Your task to perform on an android device: turn on javascript in the chrome app Image 0: 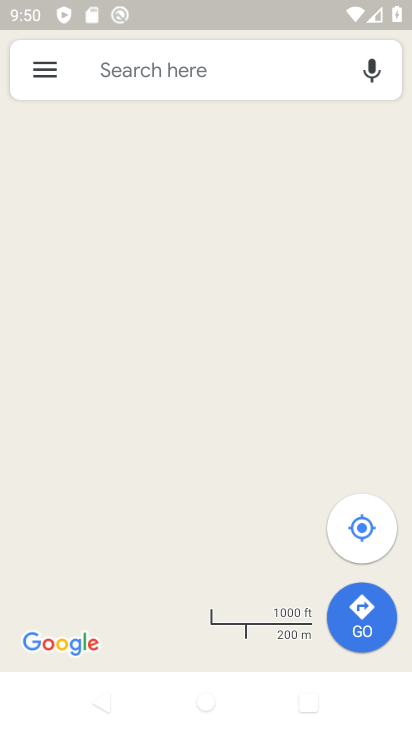
Step 0: press home button
Your task to perform on an android device: turn on javascript in the chrome app Image 1: 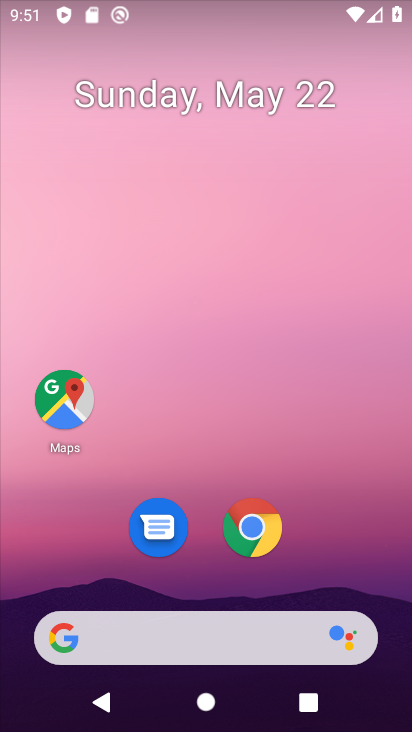
Step 1: click (284, 540)
Your task to perform on an android device: turn on javascript in the chrome app Image 2: 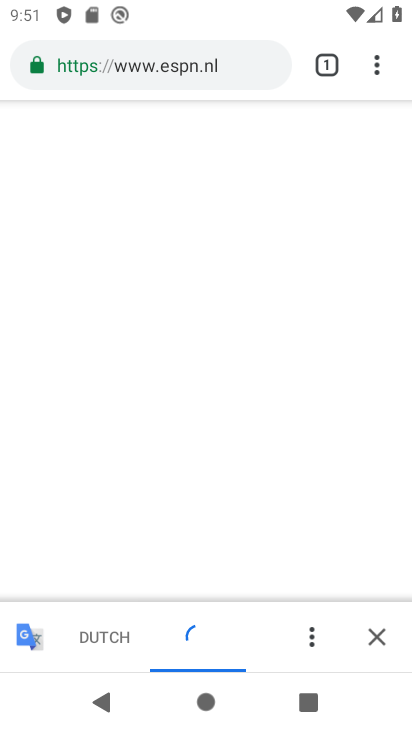
Step 2: click (377, 56)
Your task to perform on an android device: turn on javascript in the chrome app Image 3: 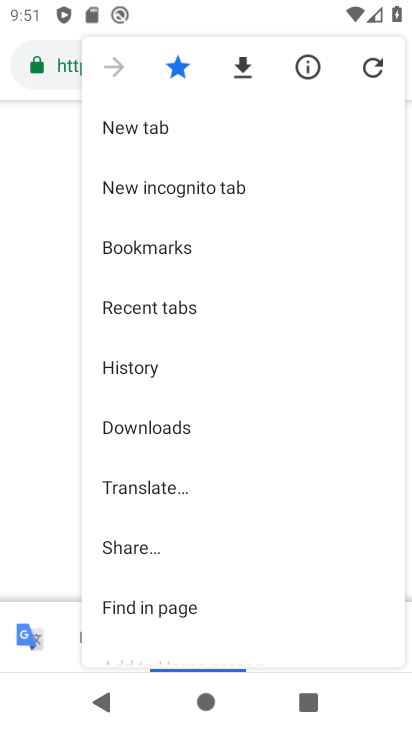
Step 3: drag from (176, 593) to (200, 373)
Your task to perform on an android device: turn on javascript in the chrome app Image 4: 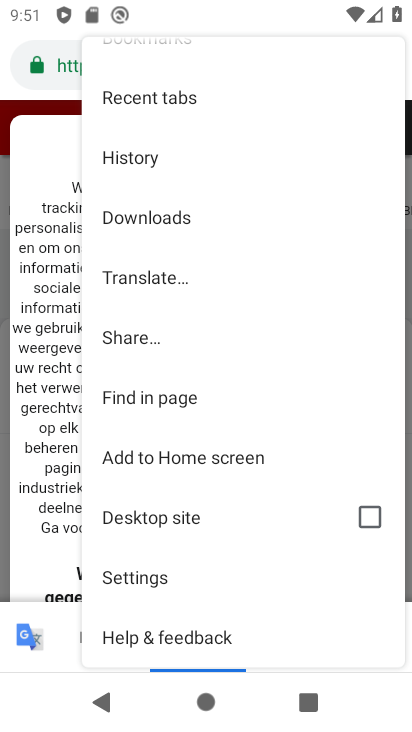
Step 4: click (145, 573)
Your task to perform on an android device: turn on javascript in the chrome app Image 5: 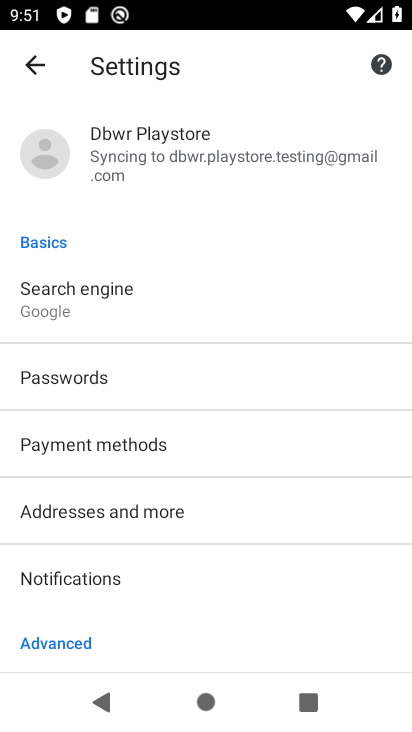
Step 5: drag from (207, 463) to (231, 265)
Your task to perform on an android device: turn on javascript in the chrome app Image 6: 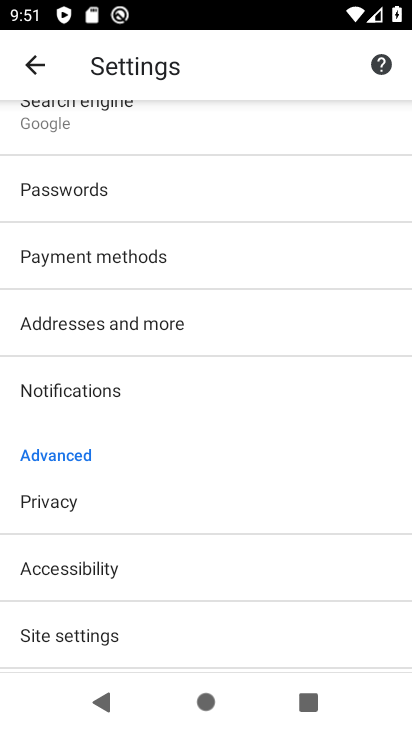
Step 6: click (143, 613)
Your task to perform on an android device: turn on javascript in the chrome app Image 7: 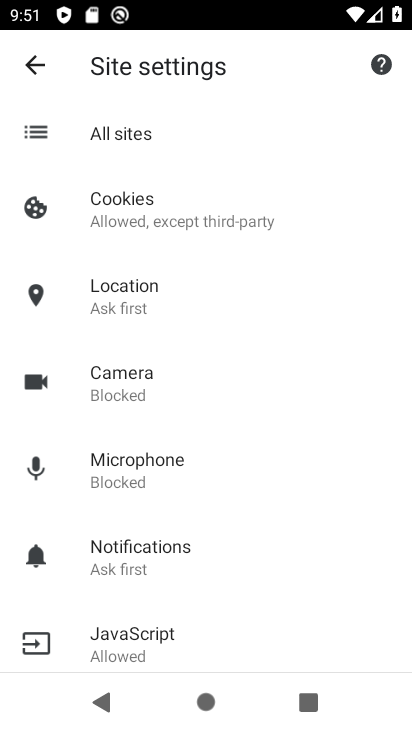
Step 7: click (124, 624)
Your task to perform on an android device: turn on javascript in the chrome app Image 8: 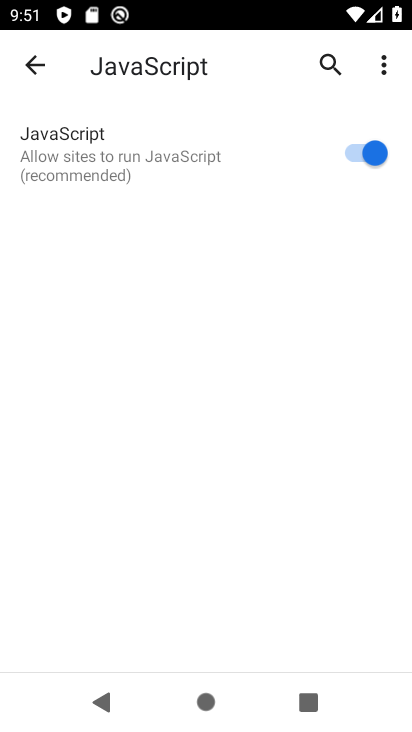
Step 8: click (344, 146)
Your task to perform on an android device: turn on javascript in the chrome app Image 9: 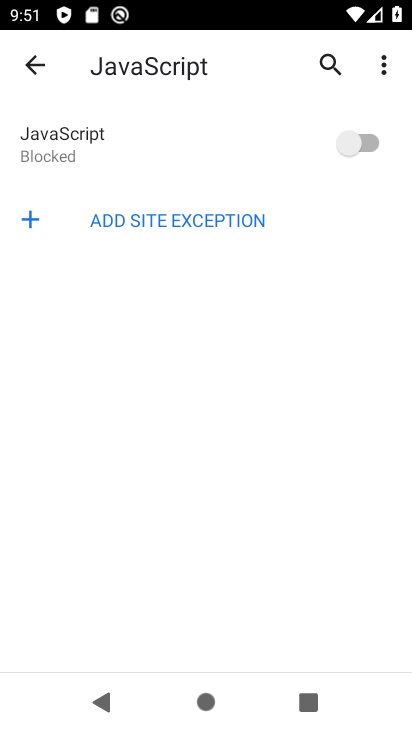
Step 9: click (377, 154)
Your task to perform on an android device: turn on javascript in the chrome app Image 10: 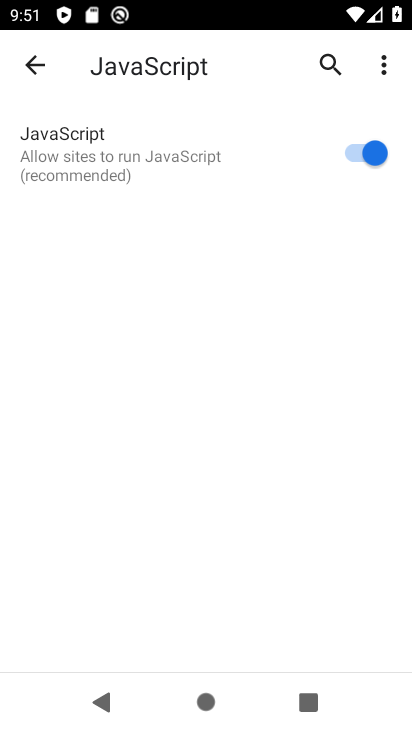
Step 10: task complete